Your task to perform on an android device: open chrome privacy settings Image 0: 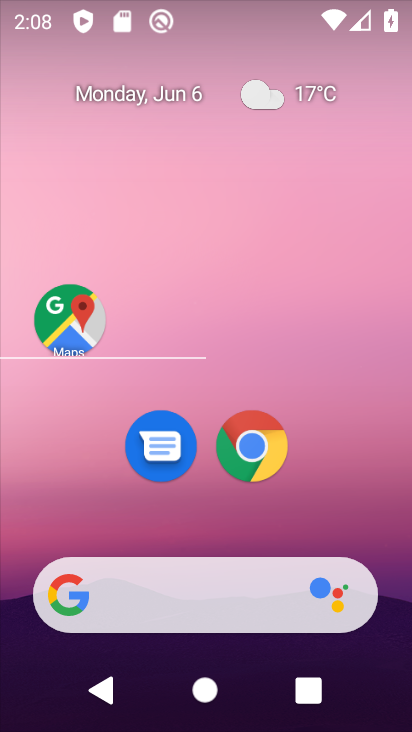
Step 0: press back button
Your task to perform on an android device: open chrome privacy settings Image 1: 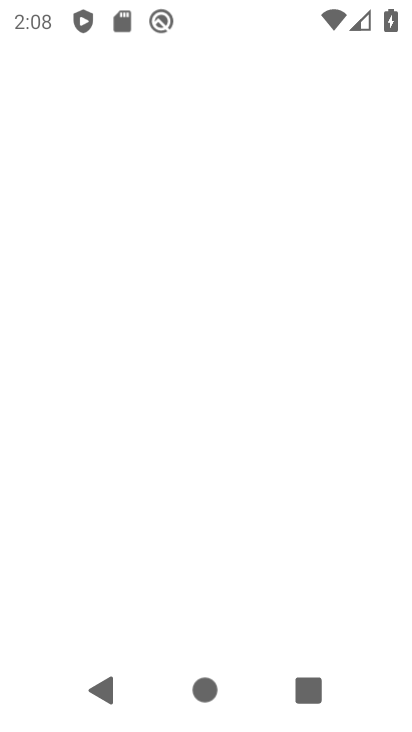
Step 1: drag from (224, 408) to (265, 99)
Your task to perform on an android device: open chrome privacy settings Image 2: 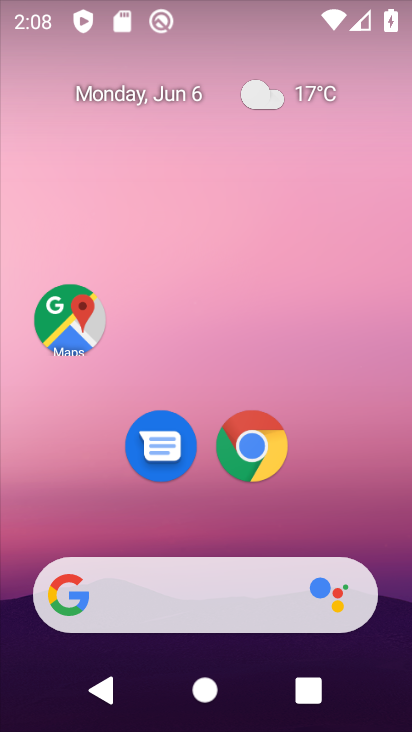
Step 2: click (259, 447)
Your task to perform on an android device: open chrome privacy settings Image 3: 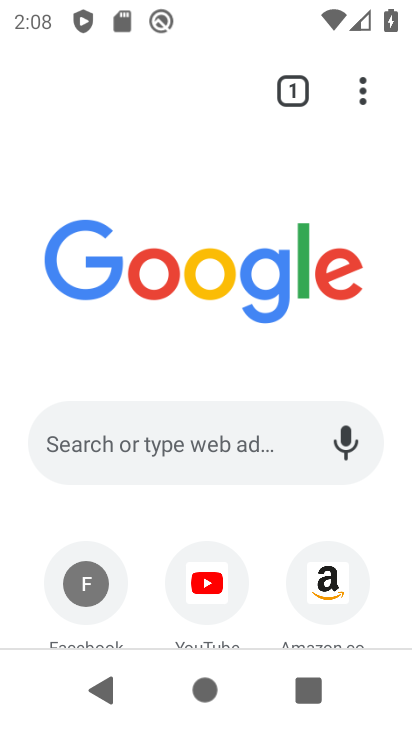
Step 3: drag from (363, 99) to (110, 460)
Your task to perform on an android device: open chrome privacy settings Image 4: 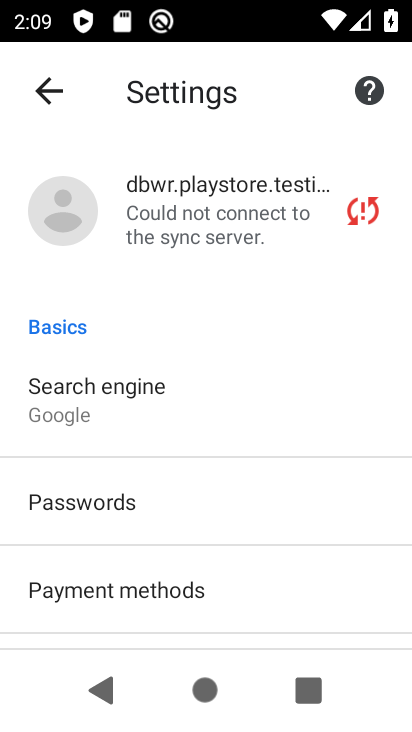
Step 4: drag from (159, 484) to (225, 196)
Your task to perform on an android device: open chrome privacy settings Image 5: 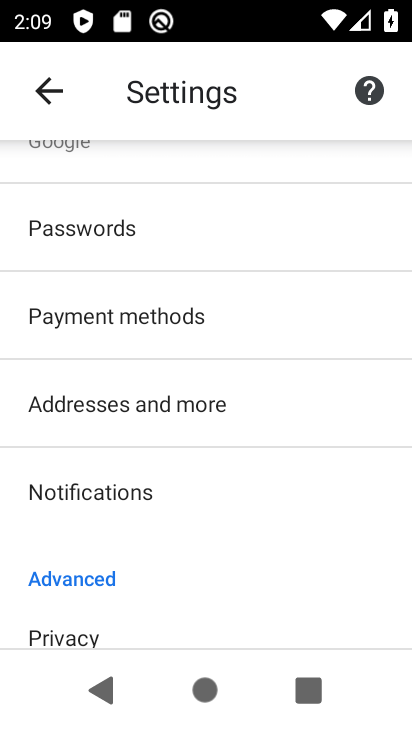
Step 5: drag from (105, 572) to (163, 200)
Your task to perform on an android device: open chrome privacy settings Image 6: 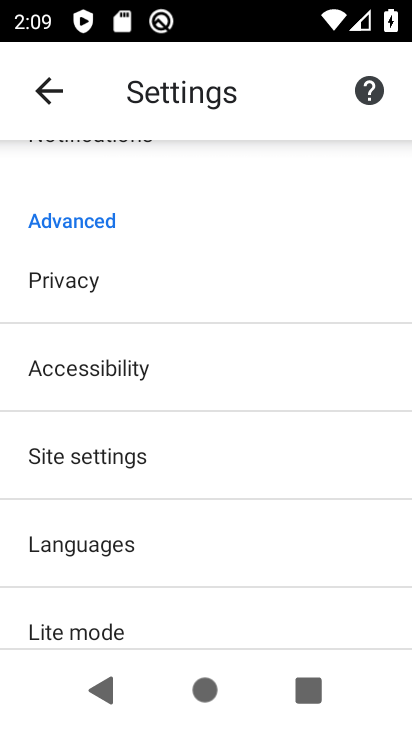
Step 6: click (81, 282)
Your task to perform on an android device: open chrome privacy settings Image 7: 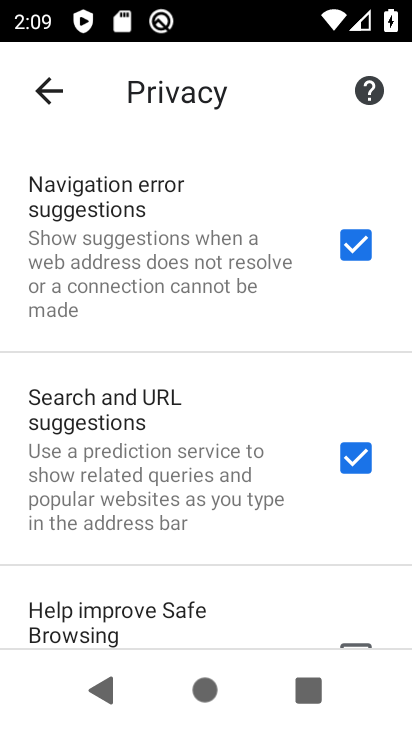
Step 7: task complete